Your task to perform on an android device: Open calendar and show me the fourth week of next month Image 0: 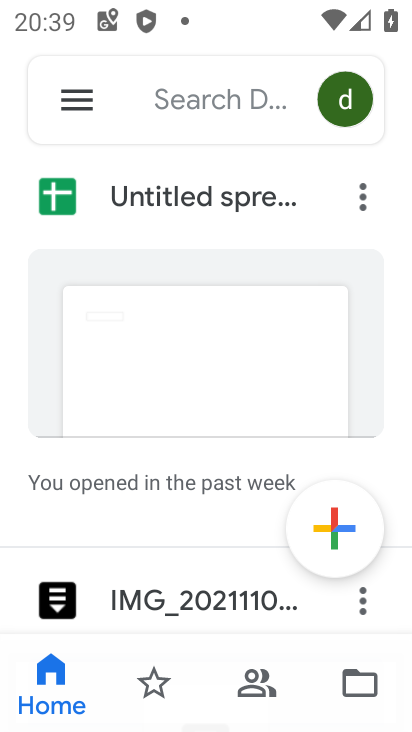
Step 0: press home button
Your task to perform on an android device: Open calendar and show me the fourth week of next month Image 1: 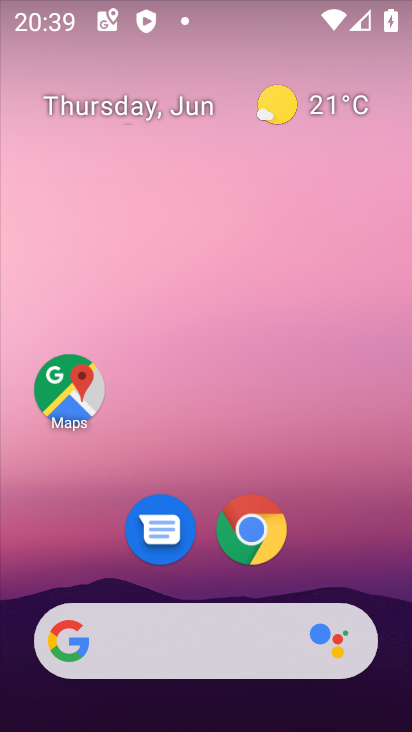
Step 1: drag from (329, 539) to (198, 52)
Your task to perform on an android device: Open calendar and show me the fourth week of next month Image 2: 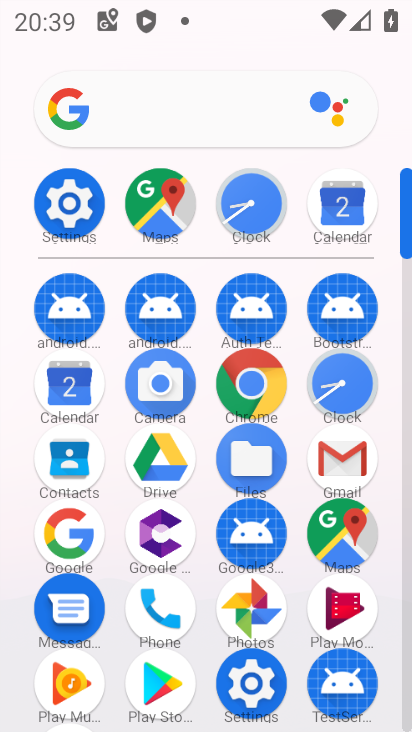
Step 2: click (59, 391)
Your task to perform on an android device: Open calendar and show me the fourth week of next month Image 3: 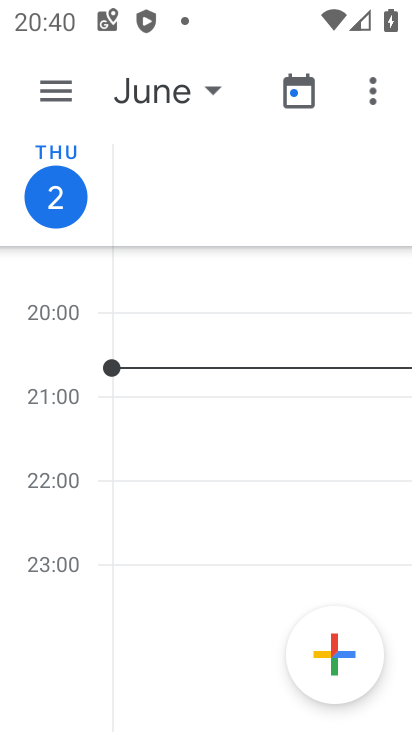
Step 3: click (57, 87)
Your task to perform on an android device: Open calendar and show me the fourth week of next month Image 4: 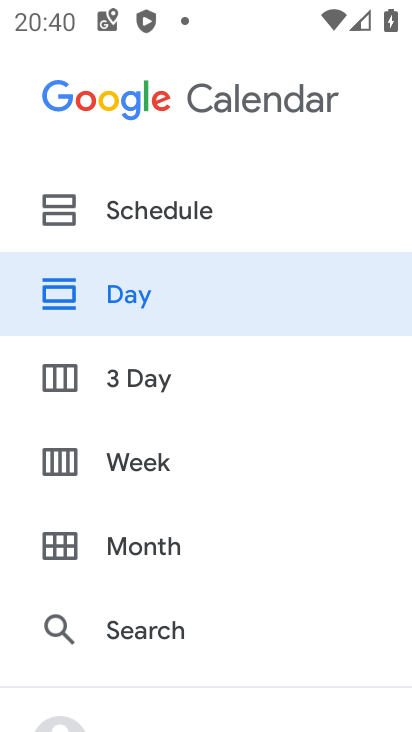
Step 4: click (127, 452)
Your task to perform on an android device: Open calendar and show me the fourth week of next month Image 5: 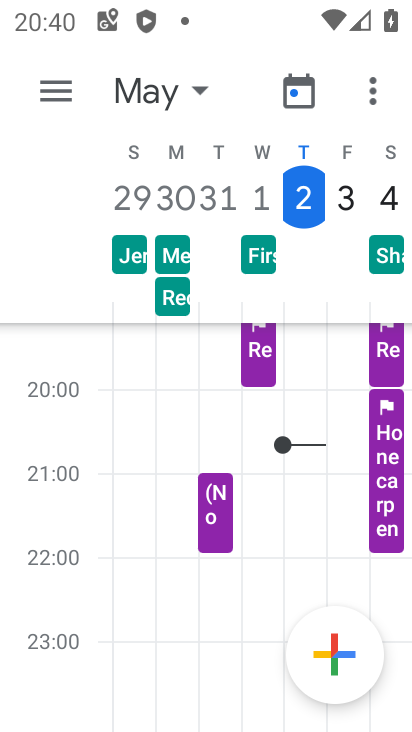
Step 5: click (201, 82)
Your task to perform on an android device: Open calendar and show me the fourth week of next month Image 6: 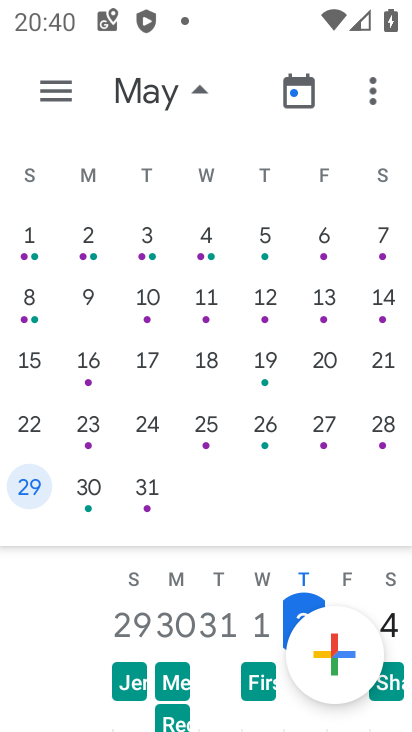
Step 6: drag from (377, 344) to (27, 260)
Your task to perform on an android device: Open calendar and show me the fourth week of next month Image 7: 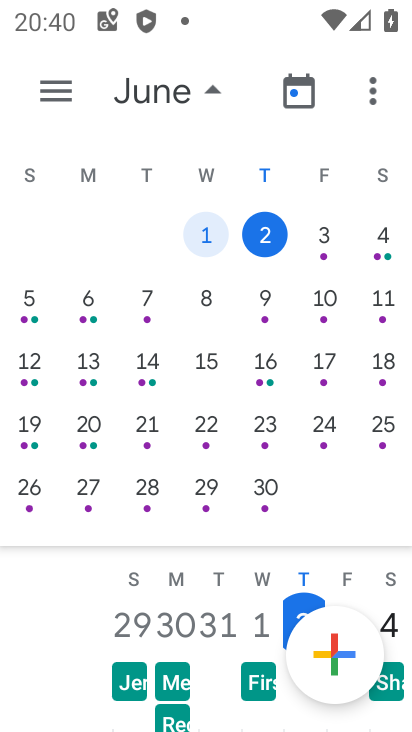
Step 7: drag from (376, 360) to (61, 323)
Your task to perform on an android device: Open calendar and show me the fourth week of next month Image 8: 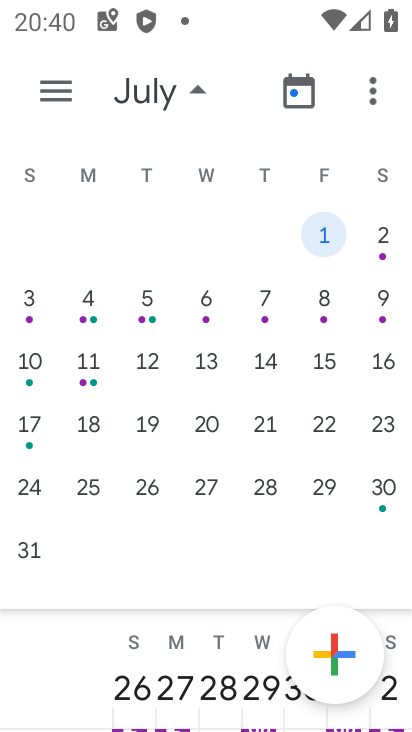
Step 8: click (207, 416)
Your task to perform on an android device: Open calendar and show me the fourth week of next month Image 9: 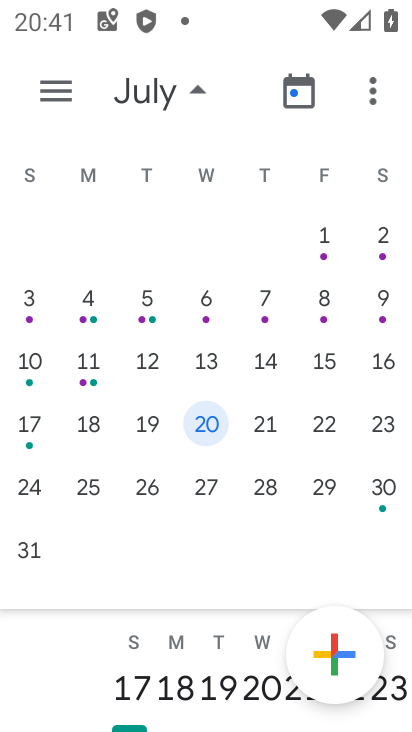
Step 9: task complete